Your task to perform on an android device: What is the recent news? Image 0: 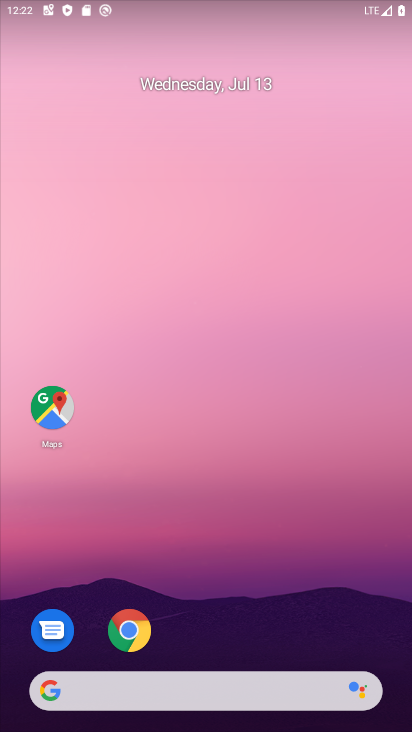
Step 0: drag from (396, 630) to (243, 12)
Your task to perform on an android device: What is the recent news? Image 1: 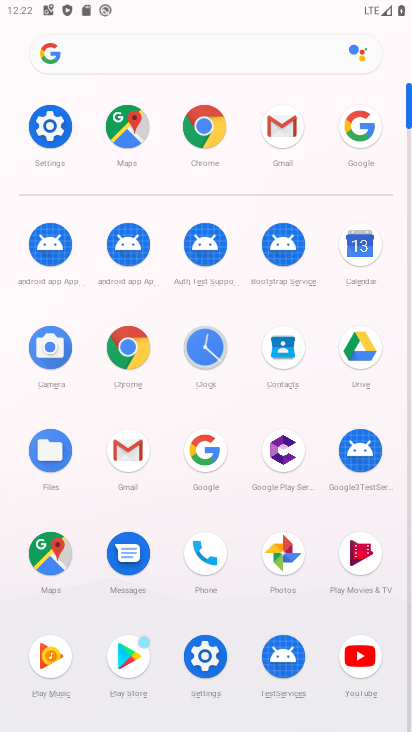
Step 1: click (201, 441)
Your task to perform on an android device: What is the recent news? Image 2: 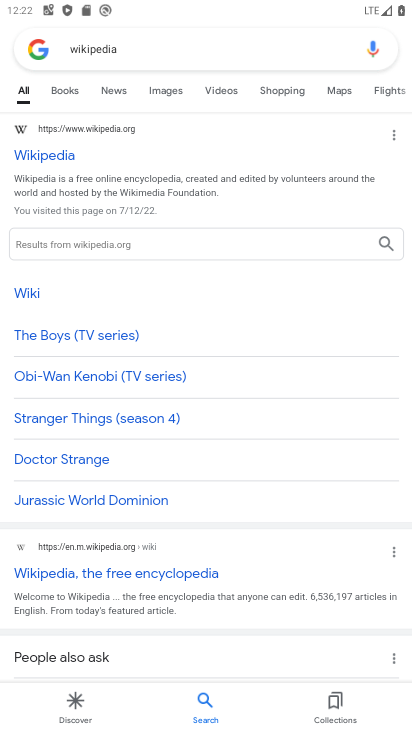
Step 2: press back button
Your task to perform on an android device: What is the recent news? Image 3: 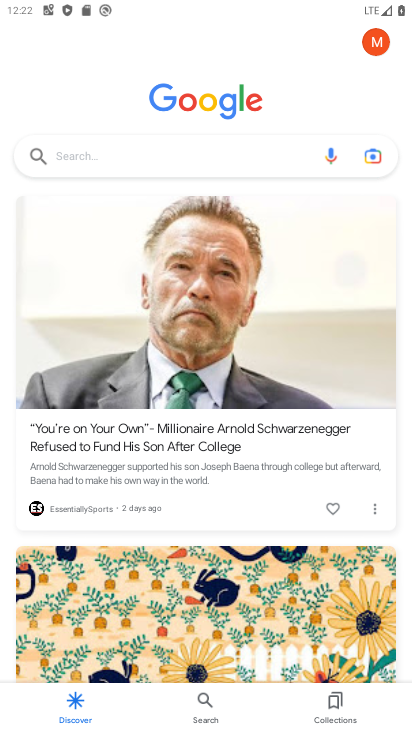
Step 3: click (119, 158)
Your task to perform on an android device: What is the recent news? Image 4: 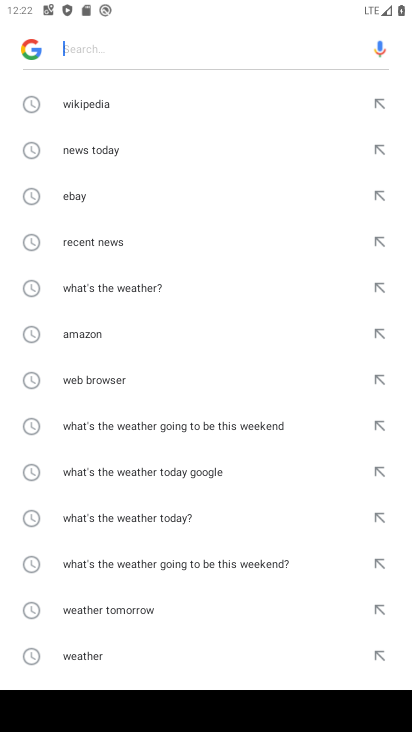
Step 4: click (126, 238)
Your task to perform on an android device: What is the recent news? Image 5: 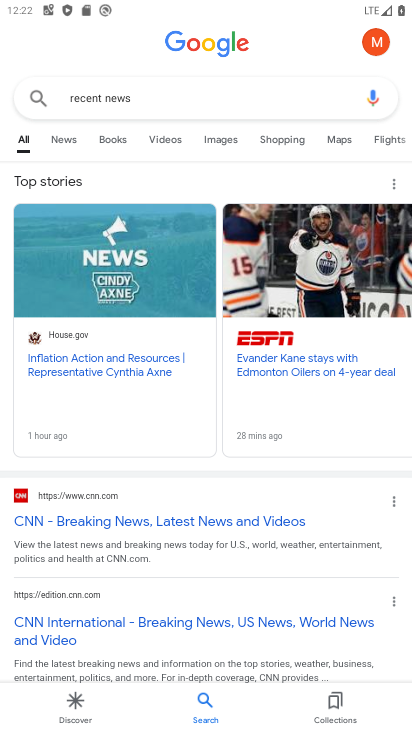
Step 5: task complete